Your task to perform on an android device: add a contact Image 0: 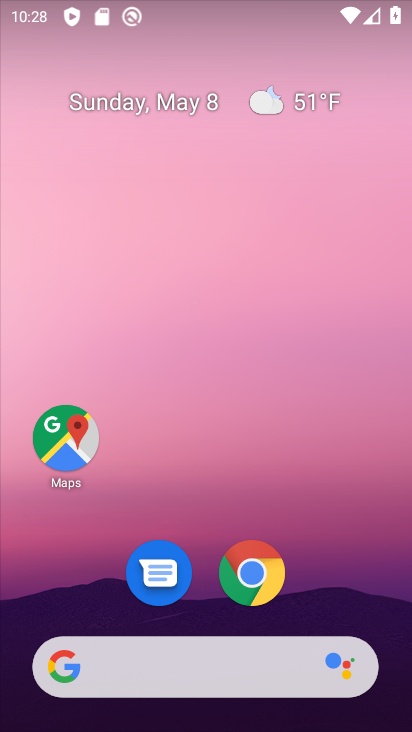
Step 0: press home button
Your task to perform on an android device: add a contact Image 1: 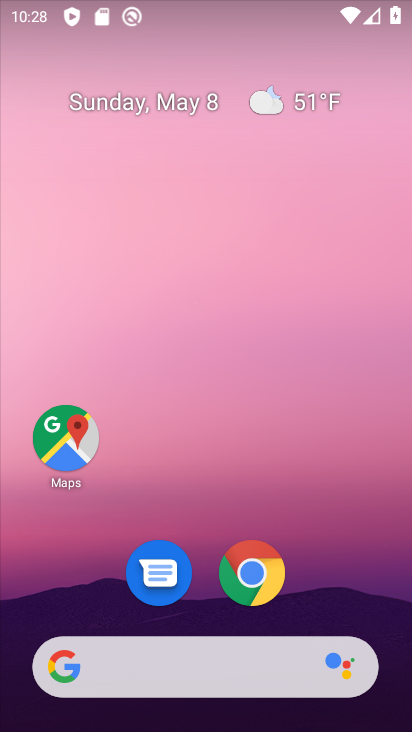
Step 1: drag from (255, 638) to (207, 123)
Your task to perform on an android device: add a contact Image 2: 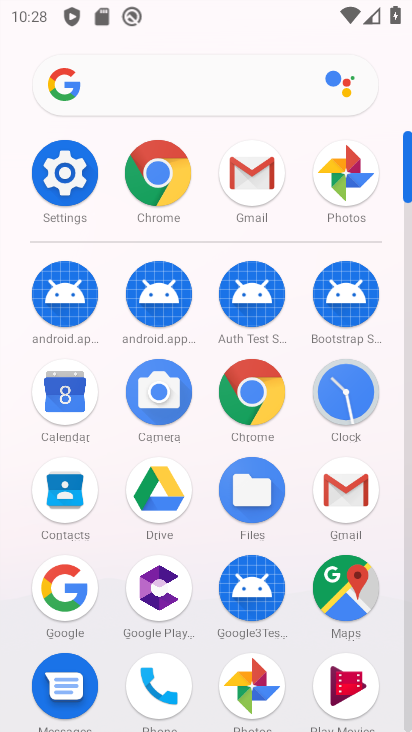
Step 2: click (65, 496)
Your task to perform on an android device: add a contact Image 3: 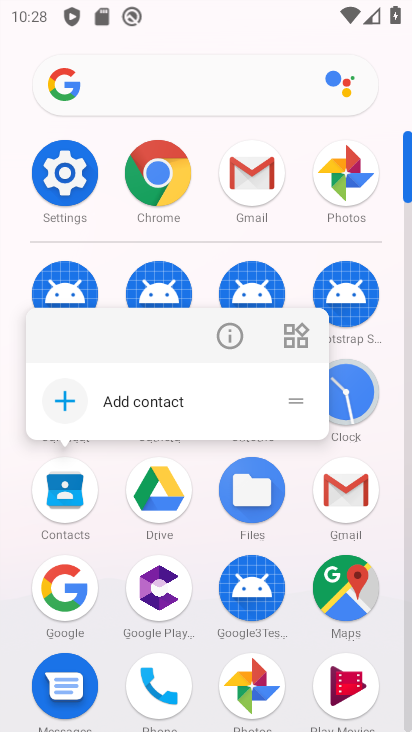
Step 3: click (65, 496)
Your task to perform on an android device: add a contact Image 4: 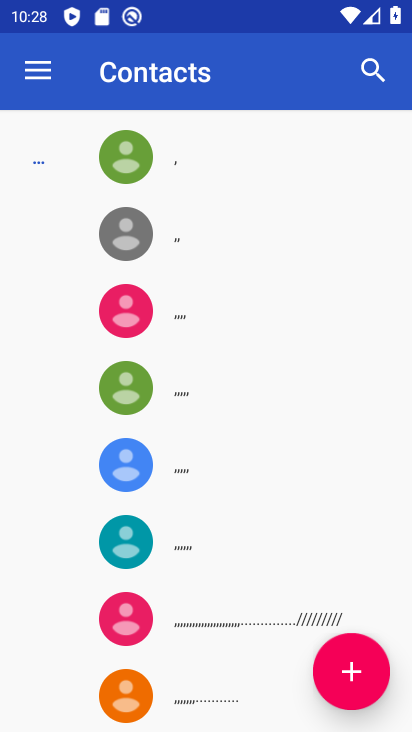
Step 4: click (347, 675)
Your task to perform on an android device: add a contact Image 5: 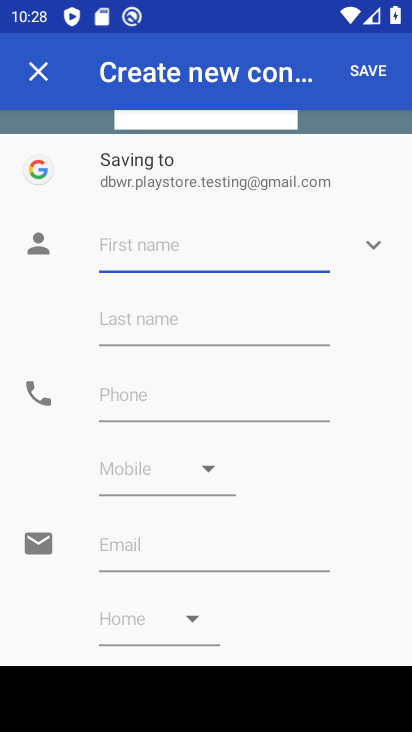
Step 5: type "nitya "
Your task to perform on an android device: add a contact Image 6: 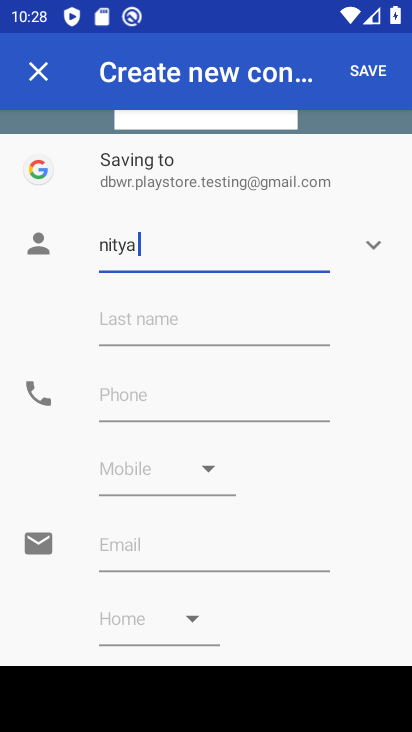
Step 6: click (164, 328)
Your task to perform on an android device: add a contact Image 7: 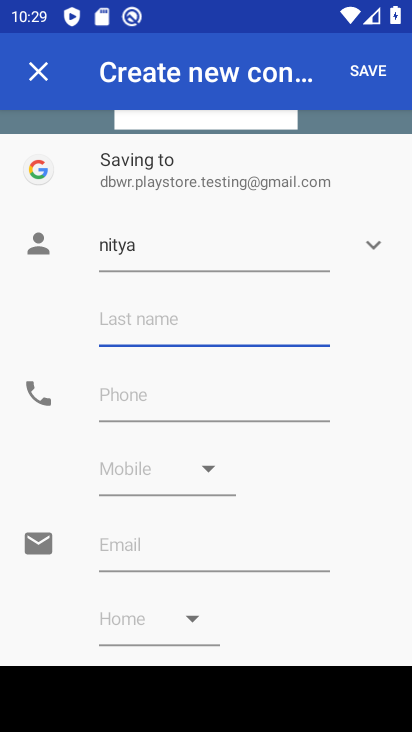
Step 7: type "shahi"
Your task to perform on an android device: add a contact Image 8: 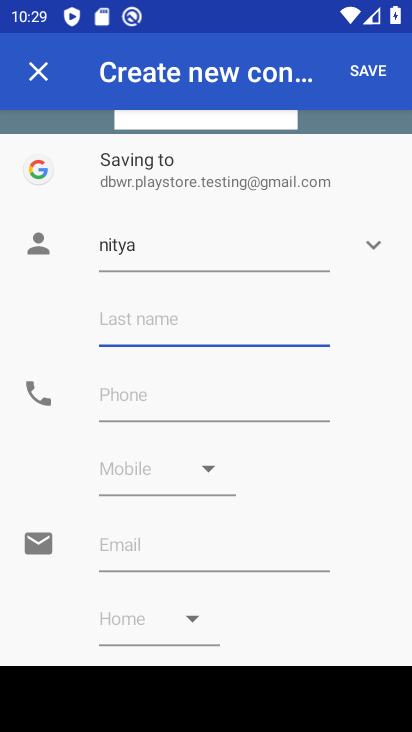
Step 8: click (129, 396)
Your task to perform on an android device: add a contact Image 9: 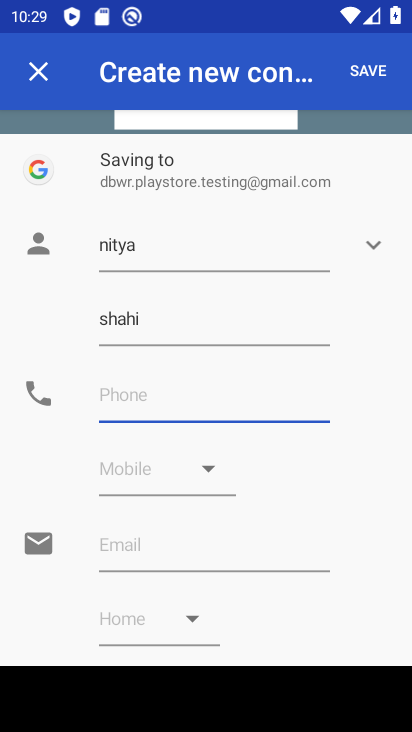
Step 9: type "7879767879"
Your task to perform on an android device: add a contact Image 10: 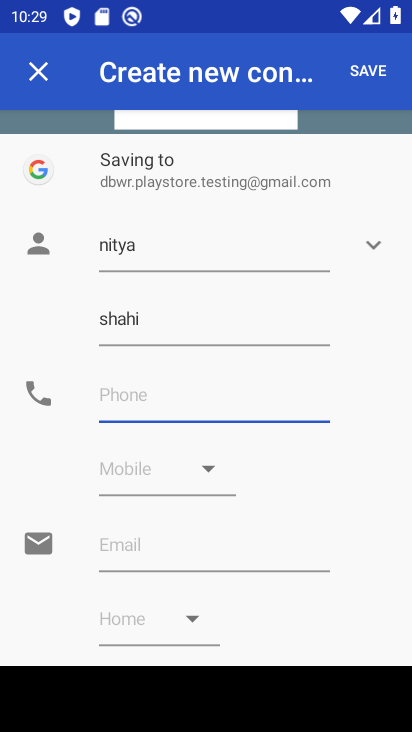
Step 10: click (212, 472)
Your task to perform on an android device: add a contact Image 11: 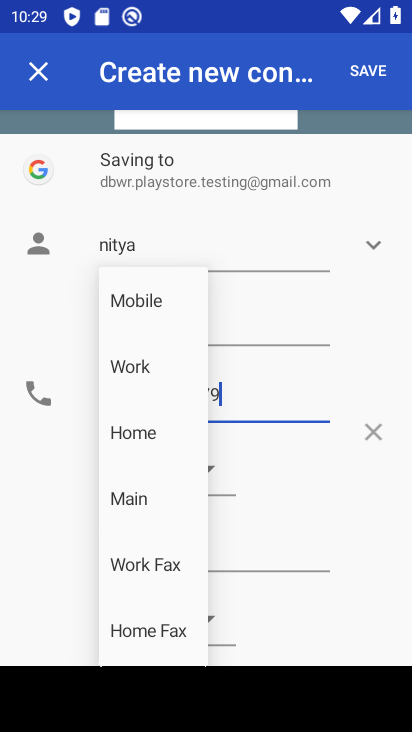
Step 11: click (143, 296)
Your task to perform on an android device: add a contact Image 12: 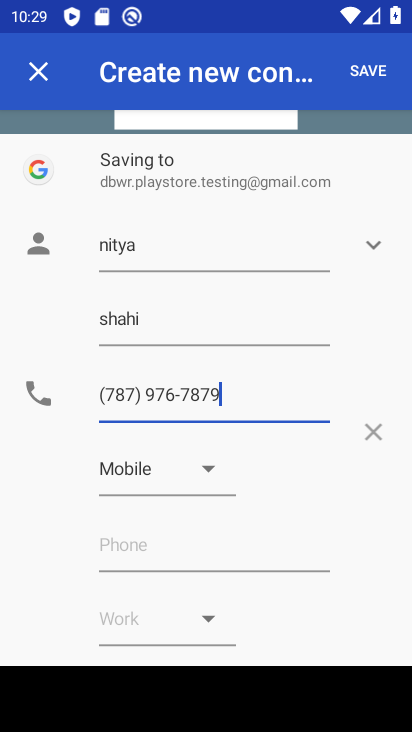
Step 12: task complete